Your task to perform on an android device: Open Google Maps Image 0: 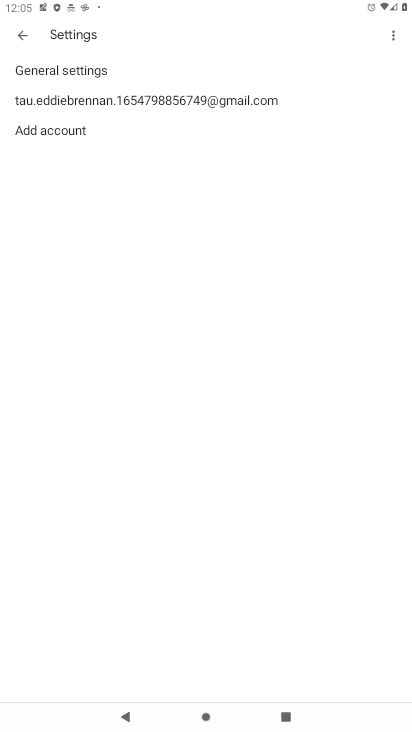
Step 0: click (28, 28)
Your task to perform on an android device: Open Google Maps Image 1: 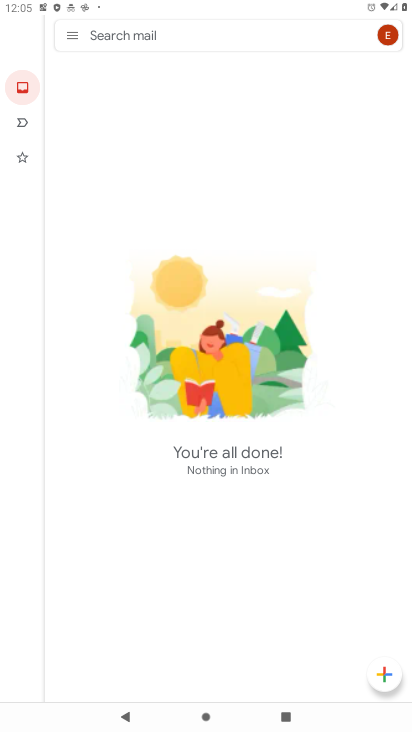
Step 1: press home button
Your task to perform on an android device: Open Google Maps Image 2: 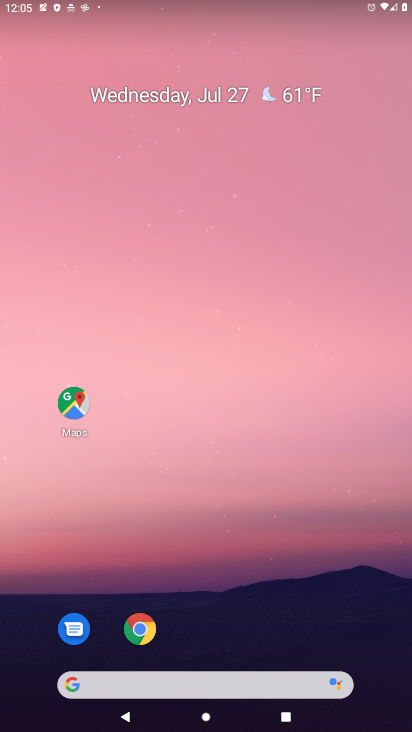
Step 2: click (79, 391)
Your task to perform on an android device: Open Google Maps Image 3: 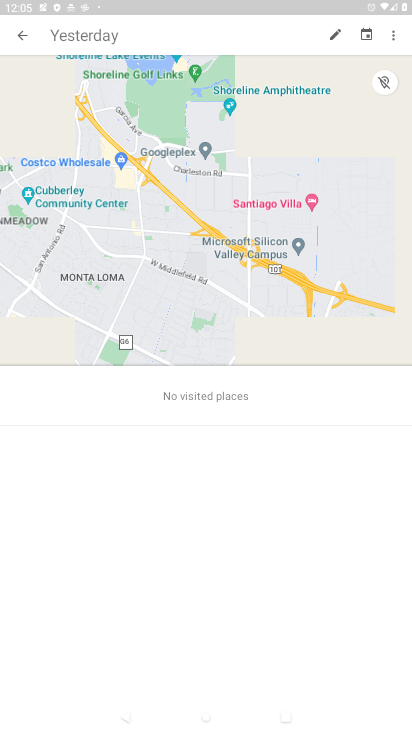
Step 3: task complete